Your task to perform on an android device: Open display settings Image 0: 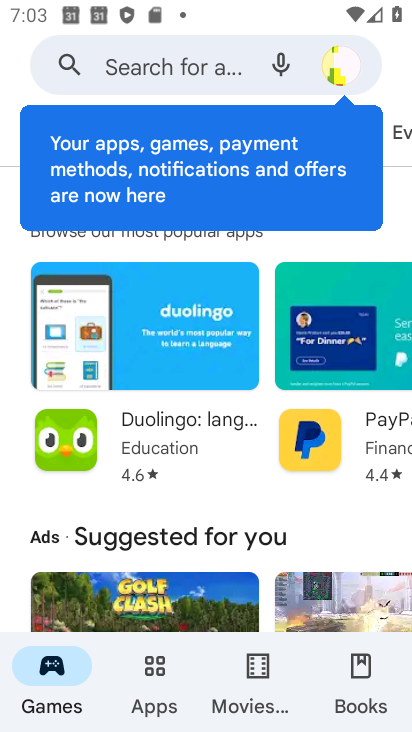
Step 0: press home button
Your task to perform on an android device: Open display settings Image 1: 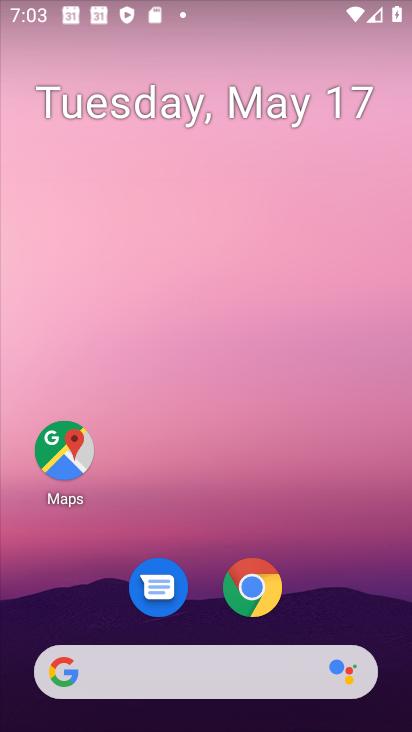
Step 1: drag from (272, 682) to (330, 262)
Your task to perform on an android device: Open display settings Image 2: 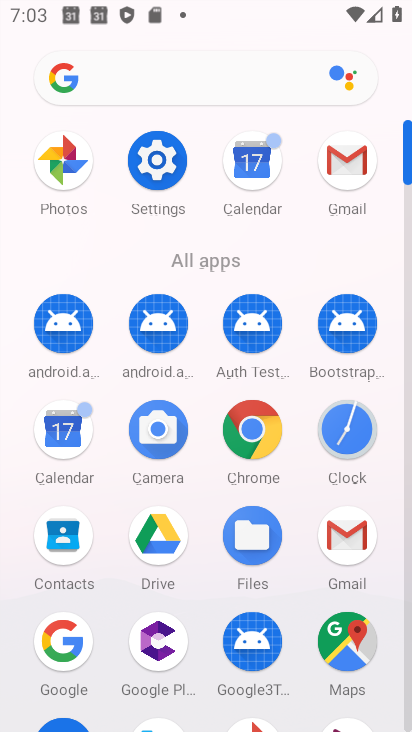
Step 2: click (170, 179)
Your task to perform on an android device: Open display settings Image 3: 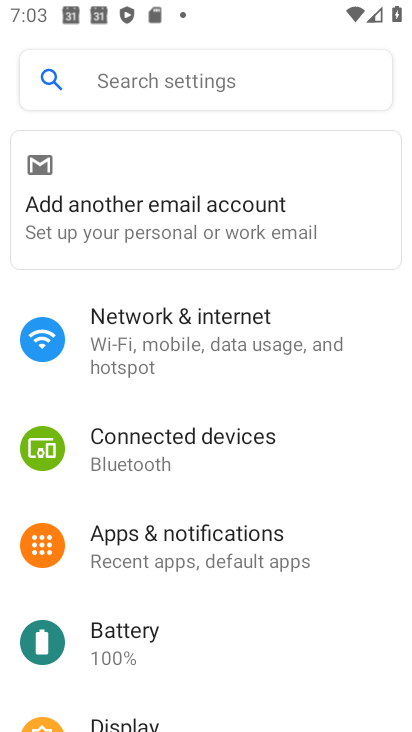
Step 3: drag from (177, 624) to (229, 453)
Your task to perform on an android device: Open display settings Image 4: 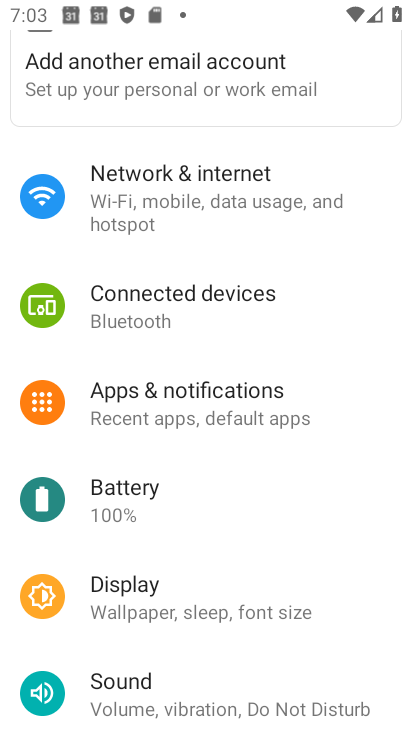
Step 4: click (130, 588)
Your task to perform on an android device: Open display settings Image 5: 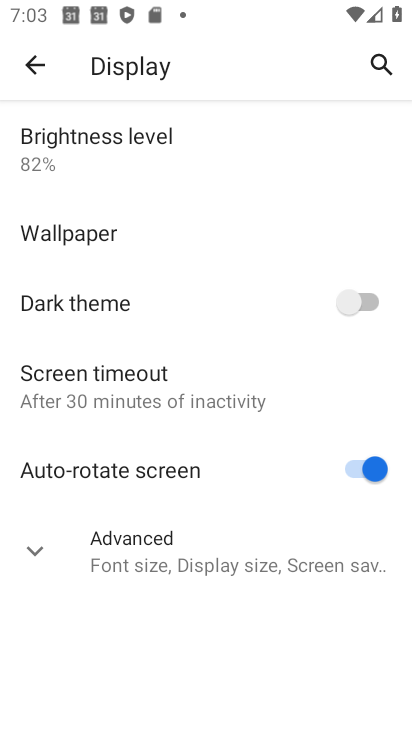
Step 5: task complete